Your task to perform on an android device: Is it going to rain this weekend? Image 0: 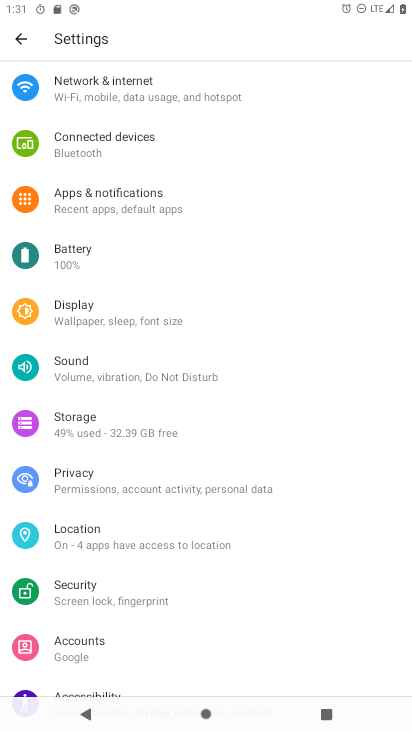
Step 0: press home button
Your task to perform on an android device: Is it going to rain this weekend? Image 1: 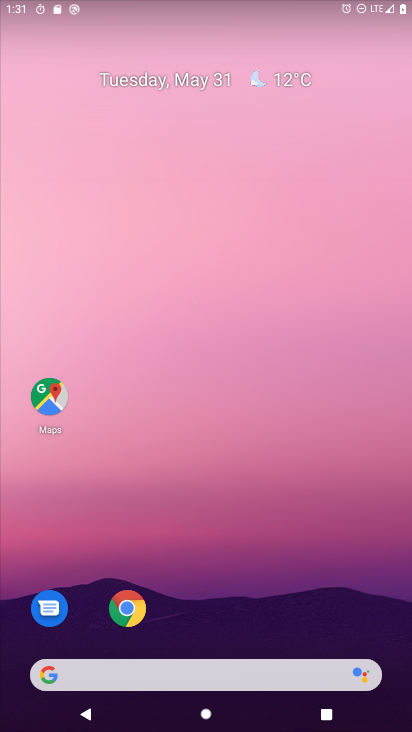
Step 1: click (284, 88)
Your task to perform on an android device: Is it going to rain this weekend? Image 2: 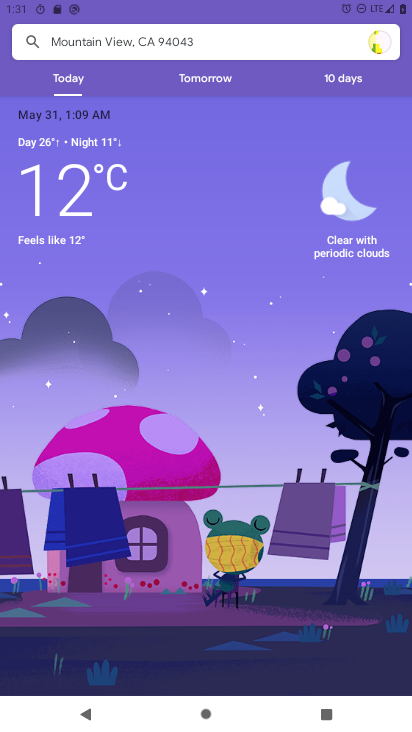
Step 2: click (361, 85)
Your task to perform on an android device: Is it going to rain this weekend? Image 3: 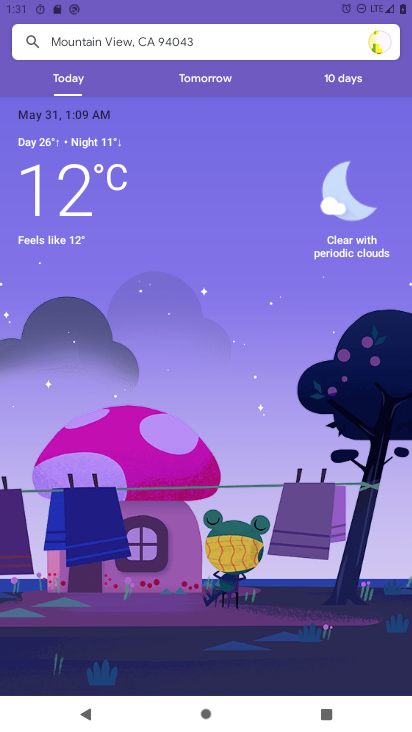
Step 3: click (343, 88)
Your task to perform on an android device: Is it going to rain this weekend? Image 4: 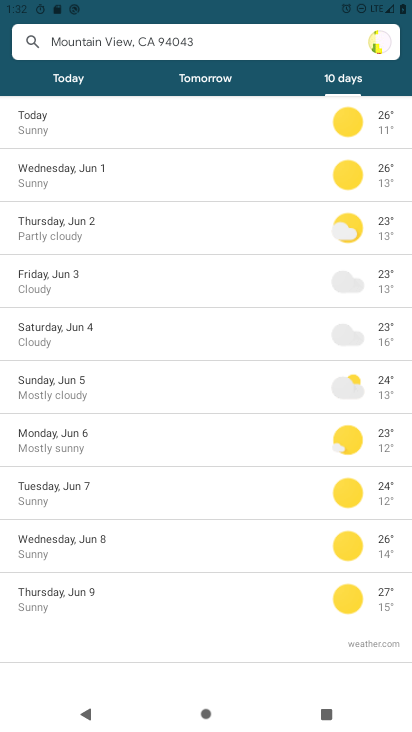
Step 4: task complete